Your task to perform on an android device: remove spam from my inbox in the gmail app Image 0: 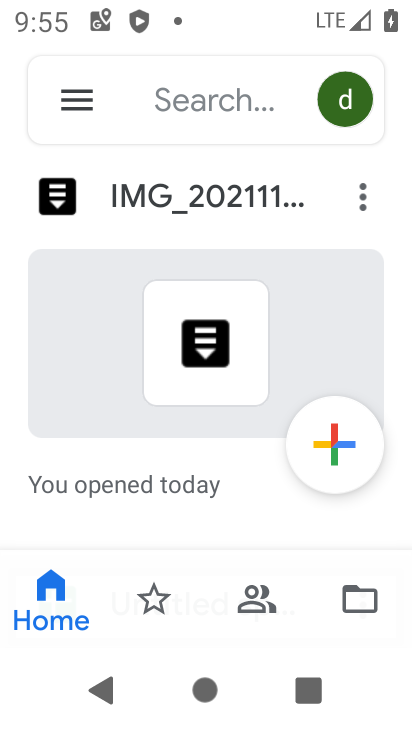
Step 0: press home button
Your task to perform on an android device: remove spam from my inbox in the gmail app Image 1: 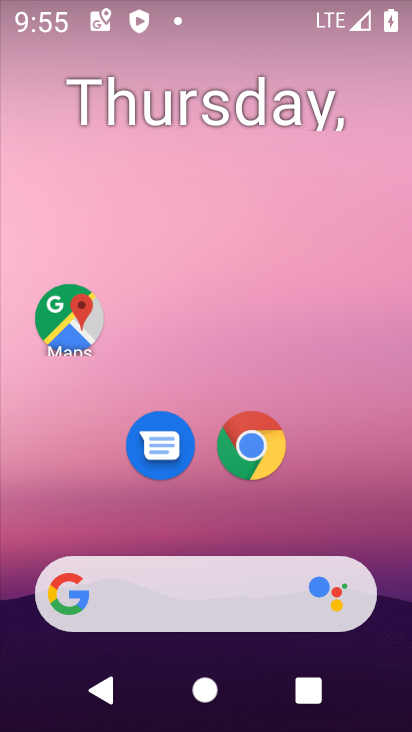
Step 1: drag from (244, 521) to (244, 170)
Your task to perform on an android device: remove spam from my inbox in the gmail app Image 2: 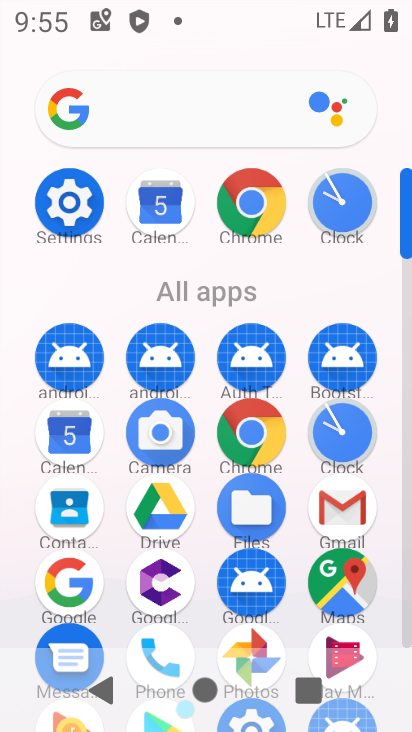
Step 2: click (333, 513)
Your task to perform on an android device: remove spam from my inbox in the gmail app Image 3: 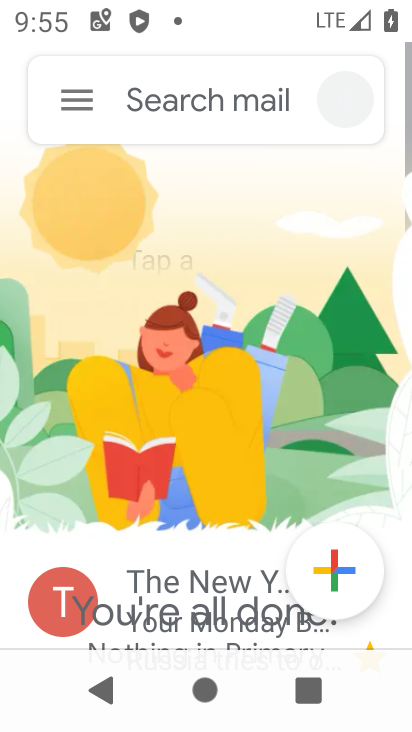
Step 3: click (88, 101)
Your task to perform on an android device: remove spam from my inbox in the gmail app Image 4: 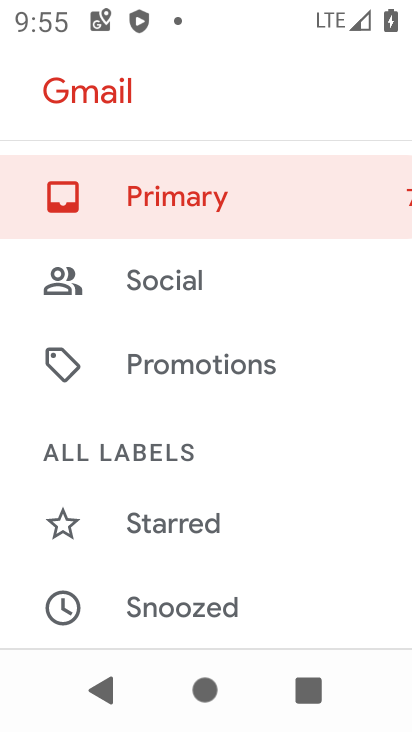
Step 4: drag from (183, 613) to (160, 304)
Your task to perform on an android device: remove spam from my inbox in the gmail app Image 5: 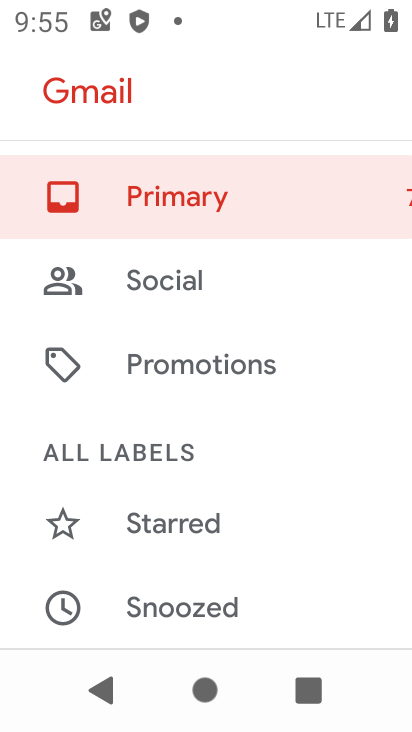
Step 5: drag from (189, 607) to (181, 358)
Your task to perform on an android device: remove spam from my inbox in the gmail app Image 6: 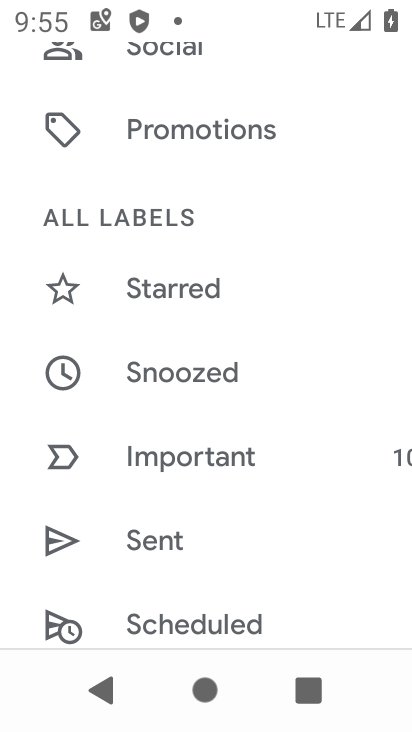
Step 6: drag from (190, 615) to (180, 352)
Your task to perform on an android device: remove spam from my inbox in the gmail app Image 7: 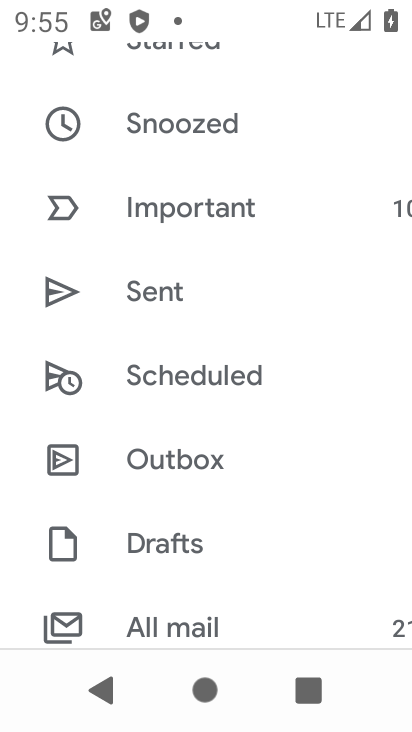
Step 7: drag from (179, 606) to (177, 355)
Your task to perform on an android device: remove spam from my inbox in the gmail app Image 8: 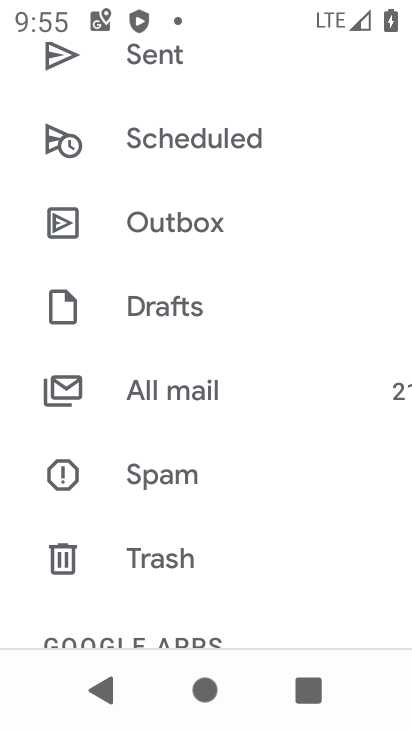
Step 8: click (164, 487)
Your task to perform on an android device: remove spam from my inbox in the gmail app Image 9: 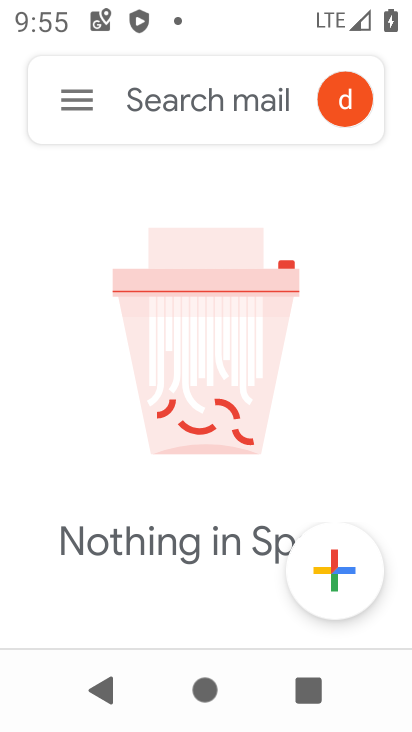
Step 9: task complete